Your task to perform on an android device: open app "DoorDash - Food Delivery" (install if not already installed) Image 0: 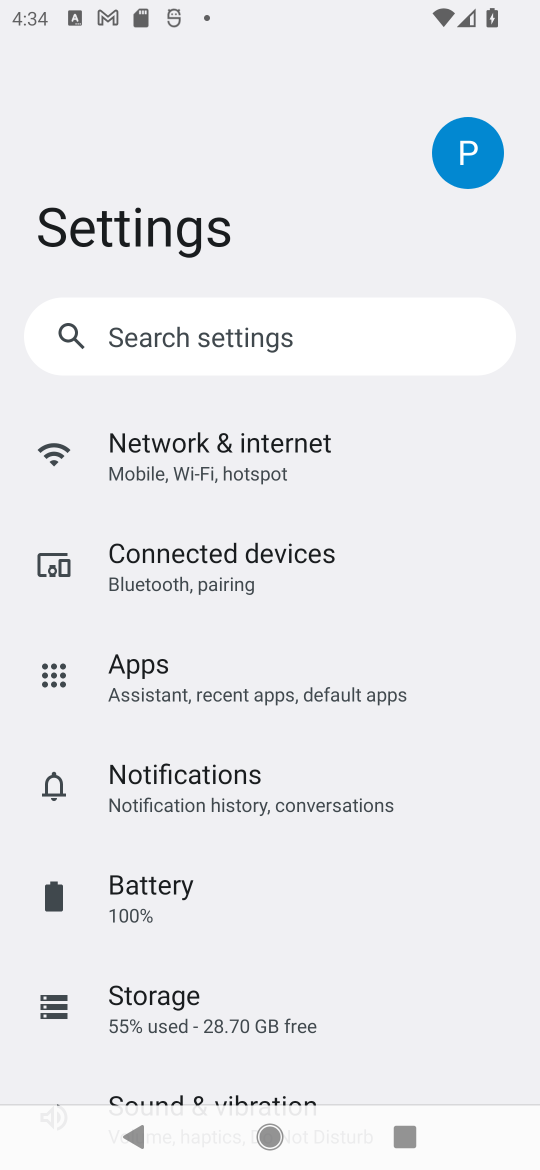
Step 0: press home button
Your task to perform on an android device: open app "DoorDash - Food Delivery" (install if not already installed) Image 1: 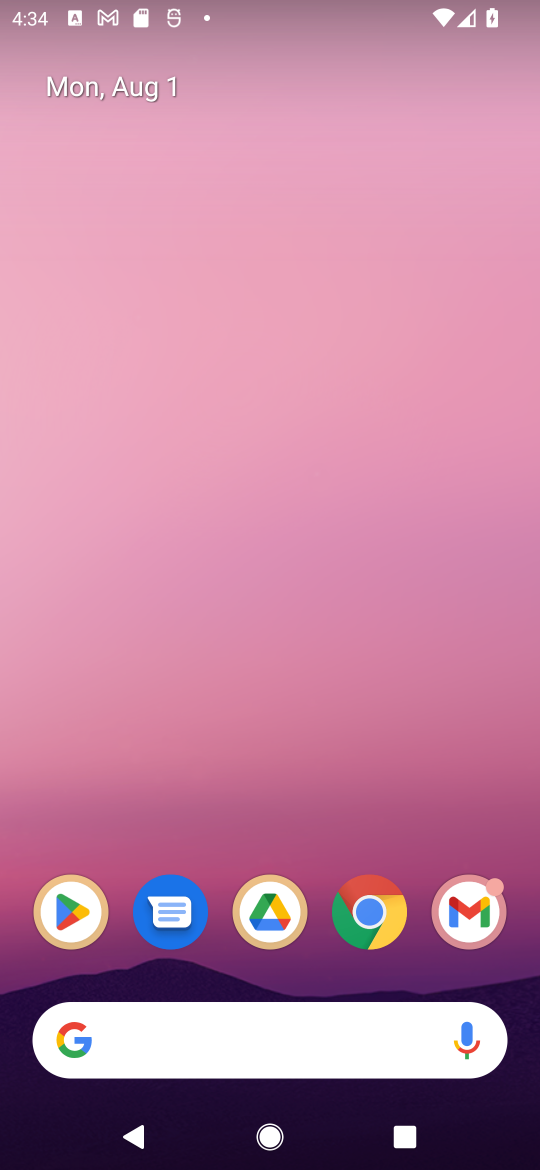
Step 1: click (65, 917)
Your task to perform on an android device: open app "DoorDash - Food Delivery" (install if not already installed) Image 2: 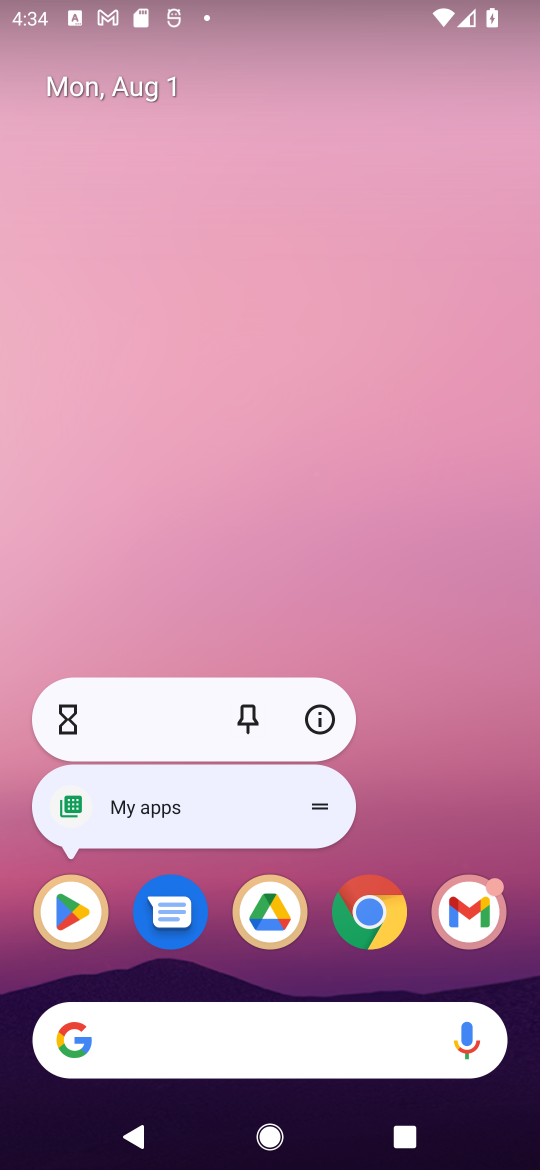
Step 2: click (65, 917)
Your task to perform on an android device: open app "DoorDash - Food Delivery" (install if not already installed) Image 3: 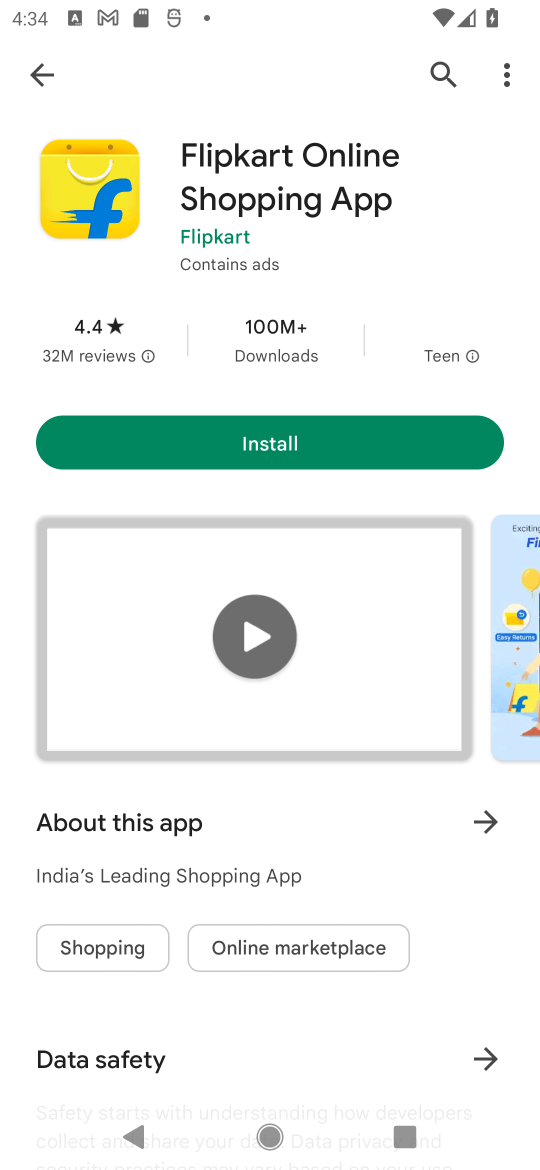
Step 3: click (428, 61)
Your task to perform on an android device: open app "DoorDash - Food Delivery" (install if not already installed) Image 4: 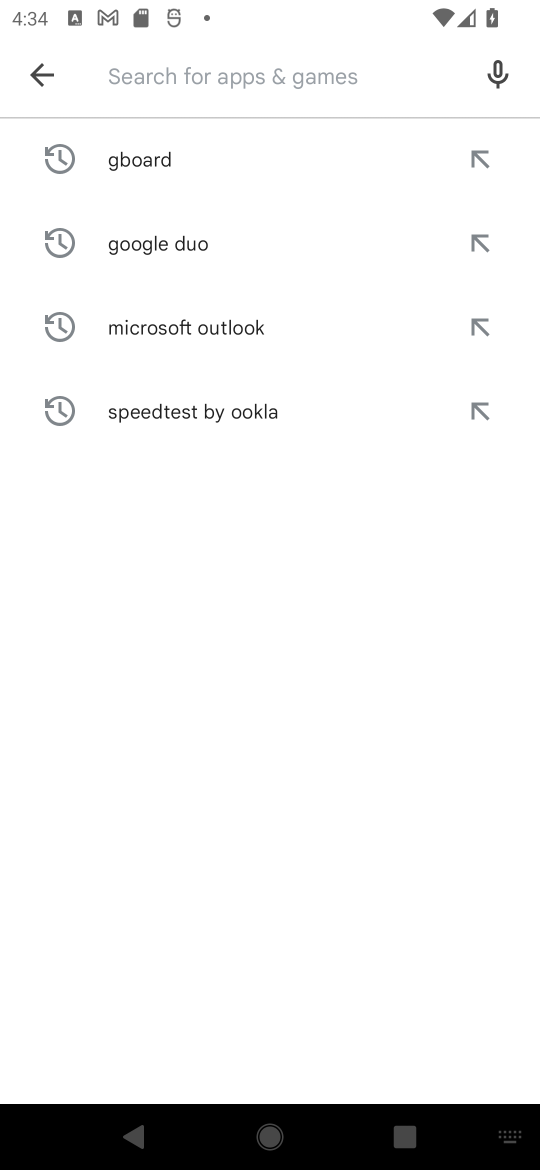
Step 4: type "DoorDash - Food Delivery"
Your task to perform on an android device: open app "DoorDash - Food Delivery" (install if not already installed) Image 5: 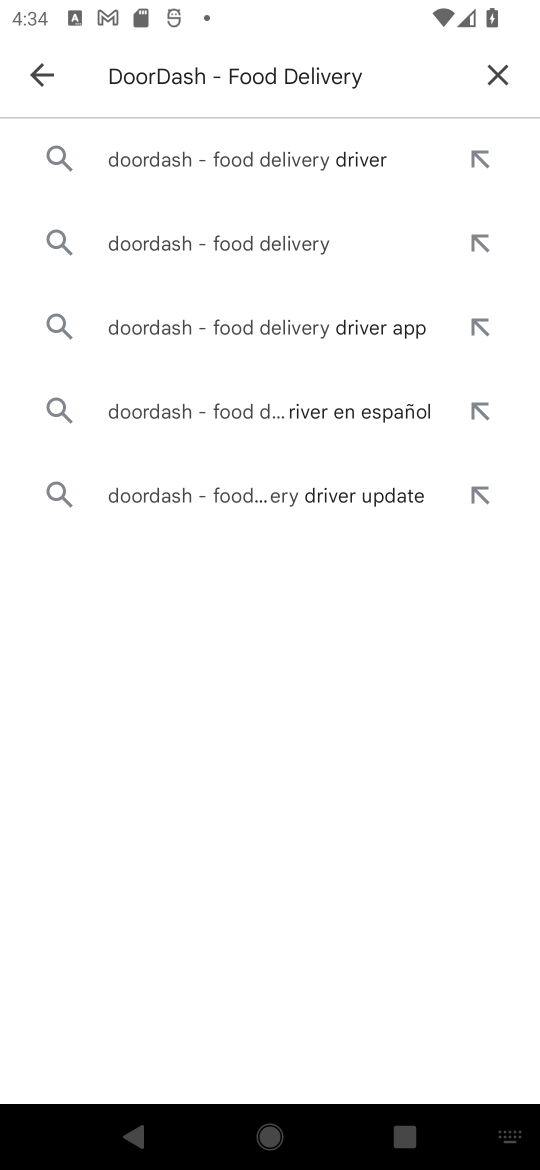
Step 5: click (246, 156)
Your task to perform on an android device: open app "DoorDash - Food Delivery" (install if not already installed) Image 6: 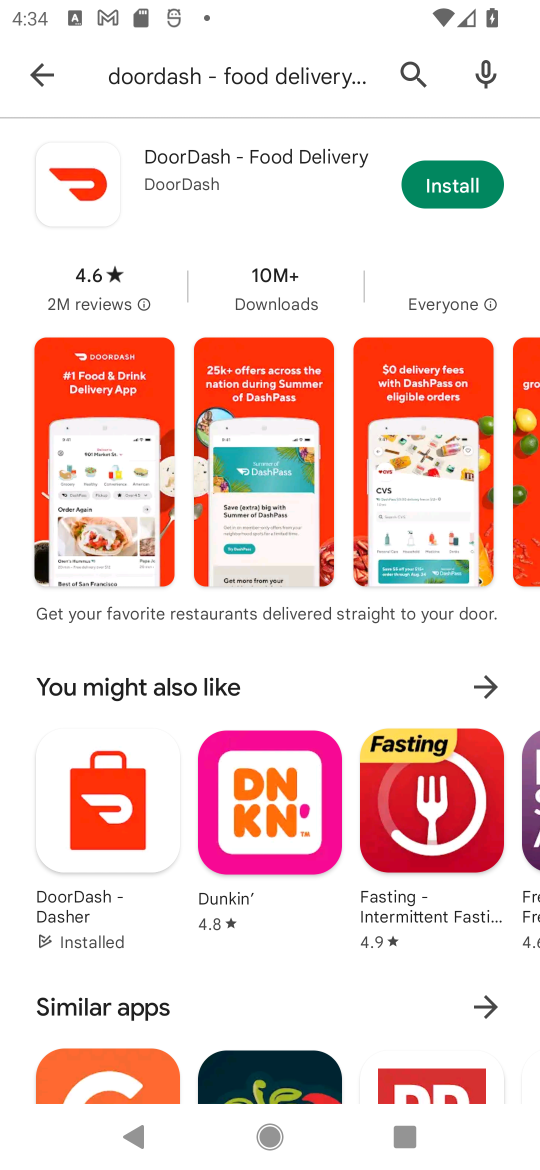
Step 6: click (445, 195)
Your task to perform on an android device: open app "DoorDash - Food Delivery" (install if not already installed) Image 7: 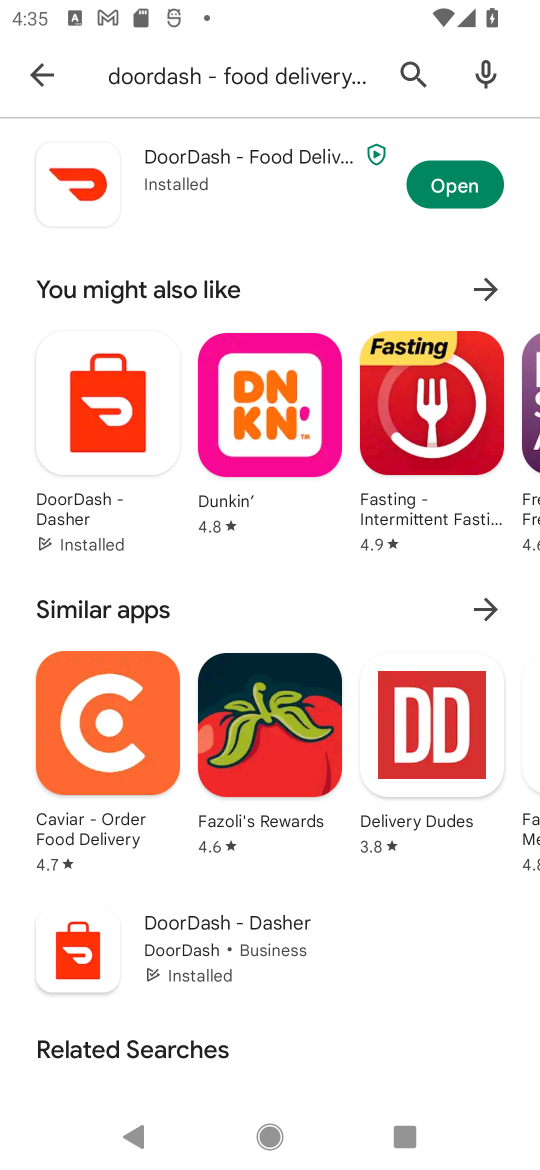
Step 7: click (450, 199)
Your task to perform on an android device: open app "DoorDash - Food Delivery" (install if not already installed) Image 8: 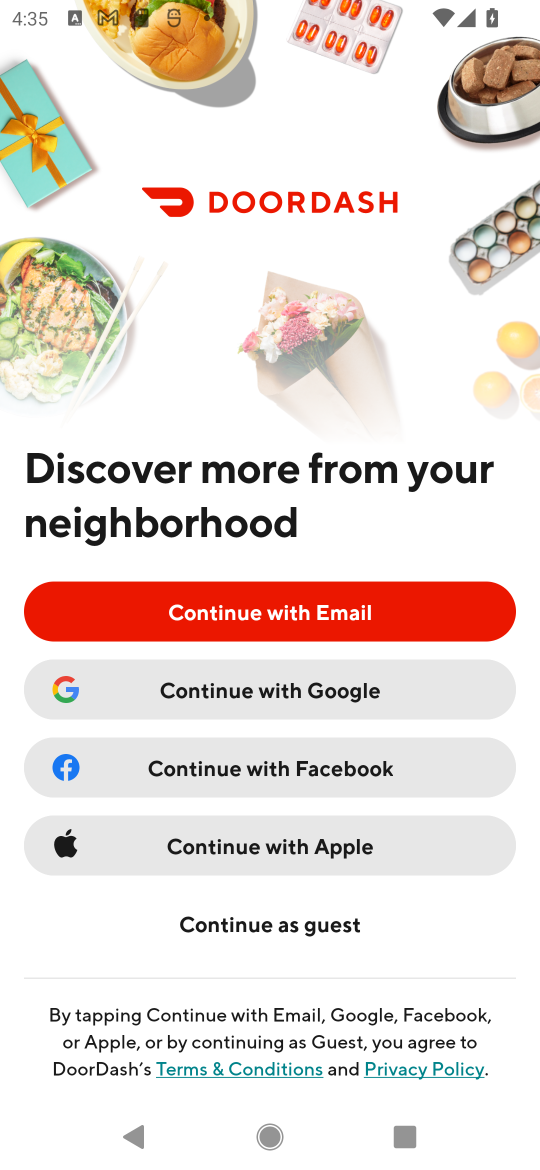
Step 8: task complete